Your task to perform on an android device: Open ESPN.com Image 0: 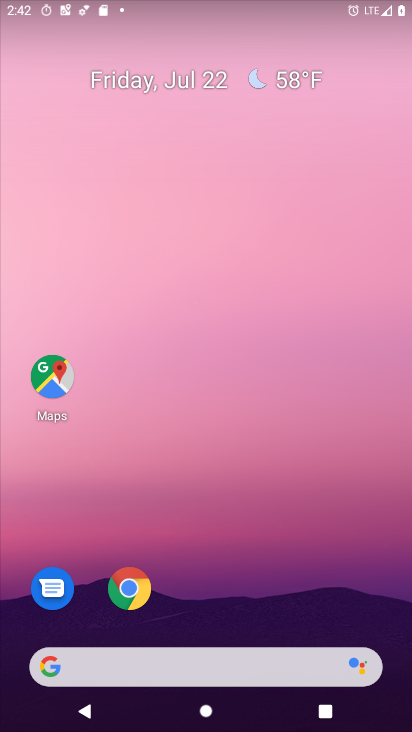
Step 0: drag from (259, 581) to (310, 107)
Your task to perform on an android device: Open ESPN.com Image 1: 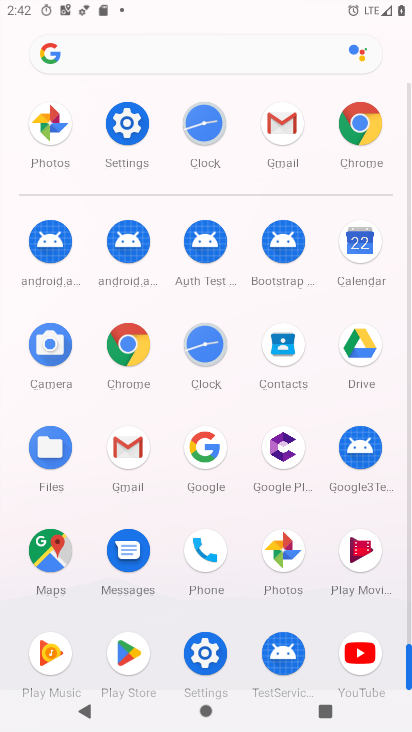
Step 1: click (136, 334)
Your task to perform on an android device: Open ESPN.com Image 2: 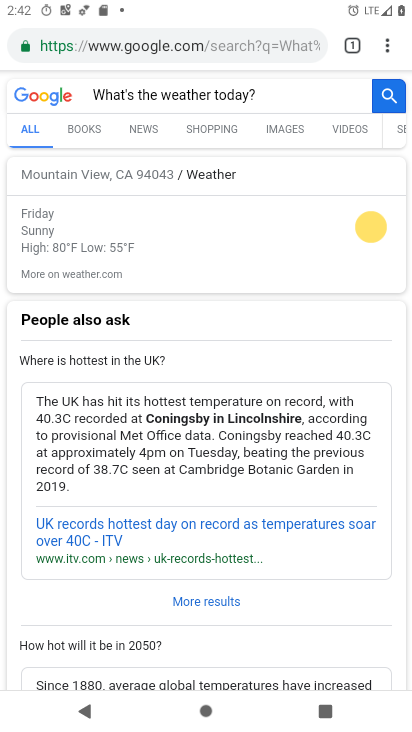
Step 2: click (251, 48)
Your task to perform on an android device: Open ESPN.com Image 3: 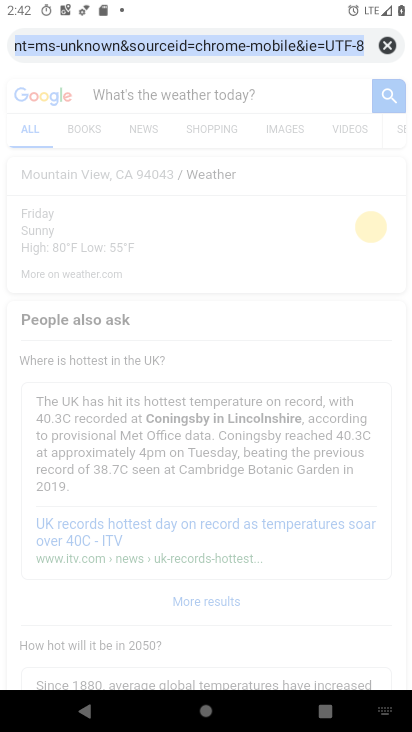
Step 3: click (386, 50)
Your task to perform on an android device: Open ESPN.com Image 4: 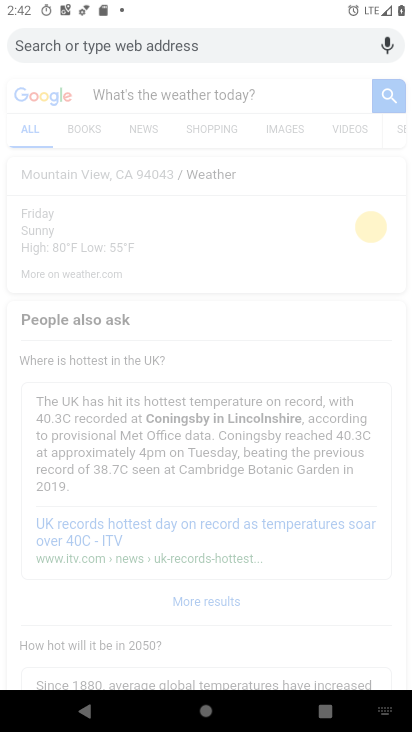
Step 4: type " ESPN.com"
Your task to perform on an android device: Open ESPN.com Image 5: 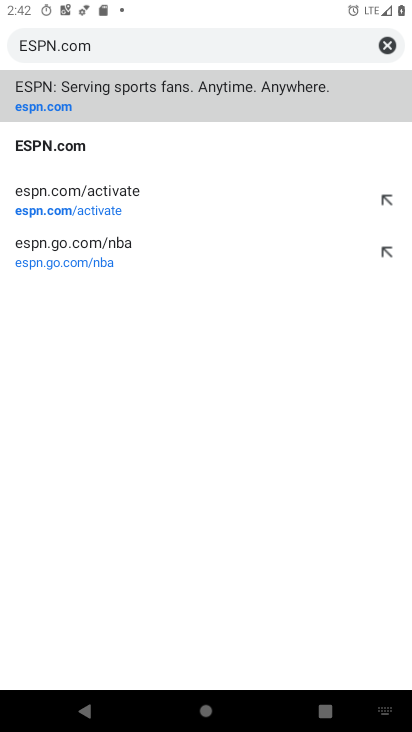
Step 5: click (45, 98)
Your task to perform on an android device: Open ESPN.com Image 6: 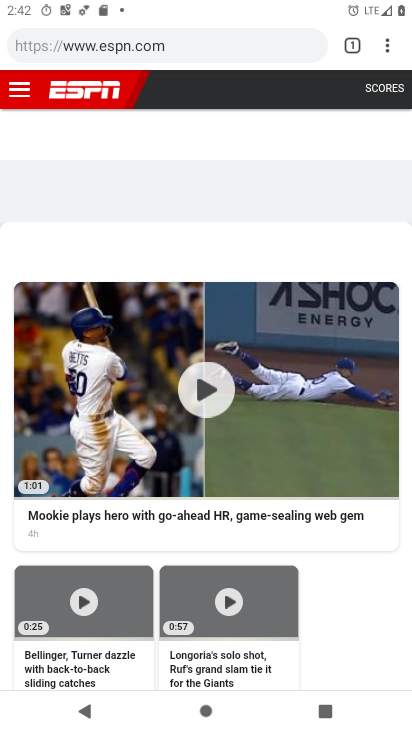
Step 6: task complete